Your task to perform on an android device: open a bookmark in the chrome app Image 0: 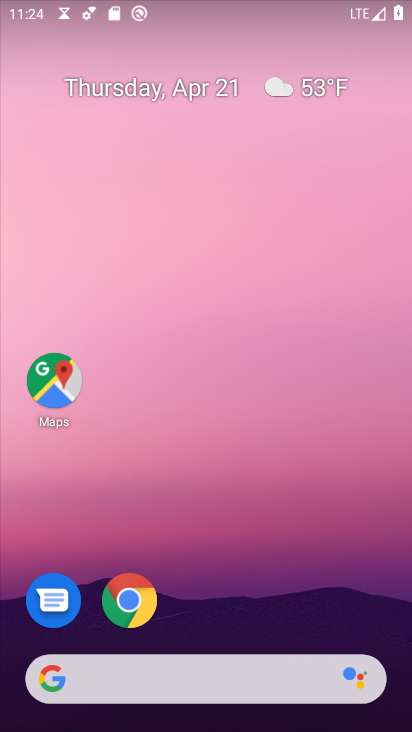
Step 0: click (134, 601)
Your task to perform on an android device: open a bookmark in the chrome app Image 1: 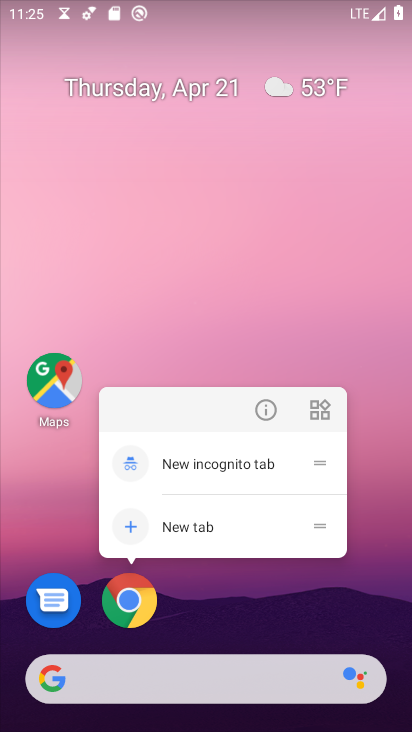
Step 1: click (140, 593)
Your task to perform on an android device: open a bookmark in the chrome app Image 2: 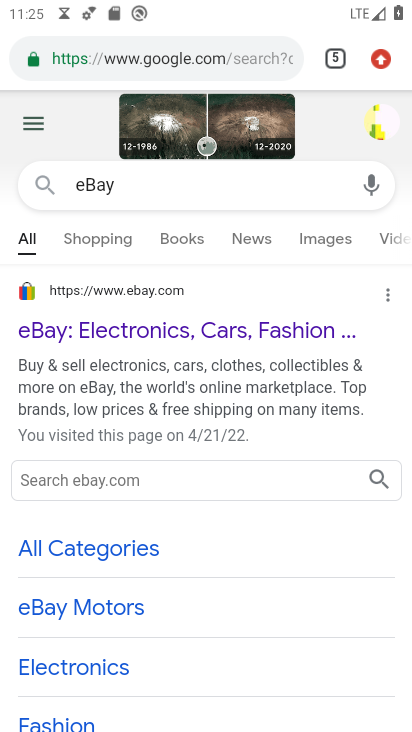
Step 2: click (379, 60)
Your task to perform on an android device: open a bookmark in the chrome app Image 3: 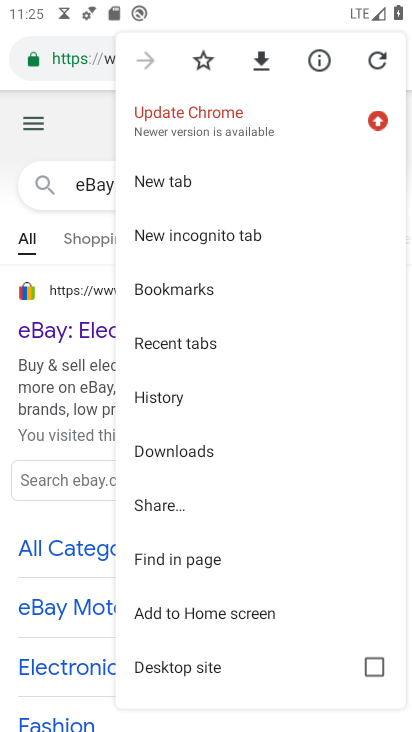
Step 3: click (187, 290)
Your task to perform on an android device: open a bookmark in the chrome app Image 4: 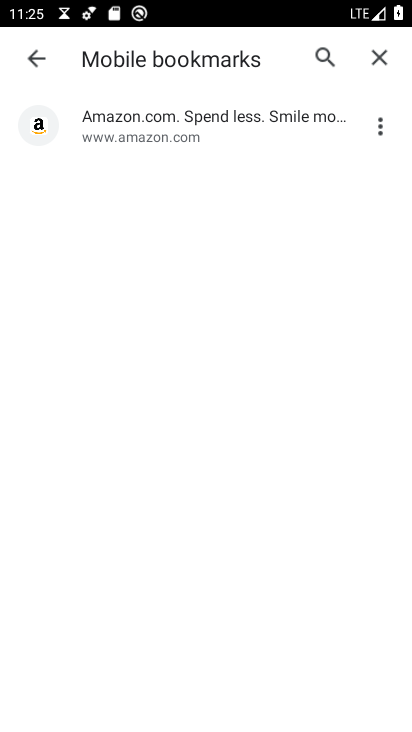
Step 4: click (153, 135)
Your task to perform on an android device: open a bookmark in the chrome app Image 5: 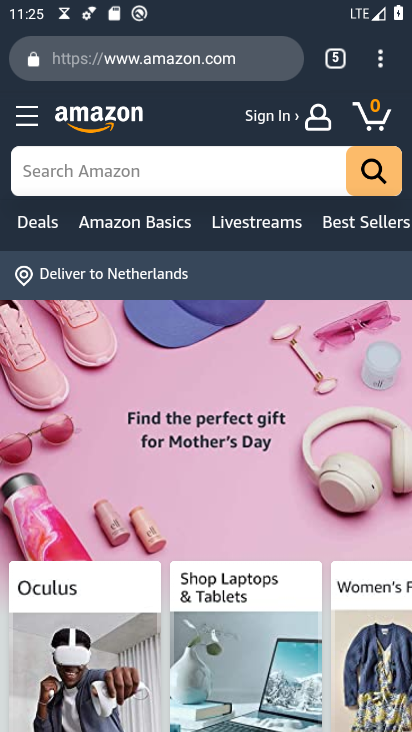
Step 5: task complete